Your task to perform on an android device: Go to display settings Image 0: 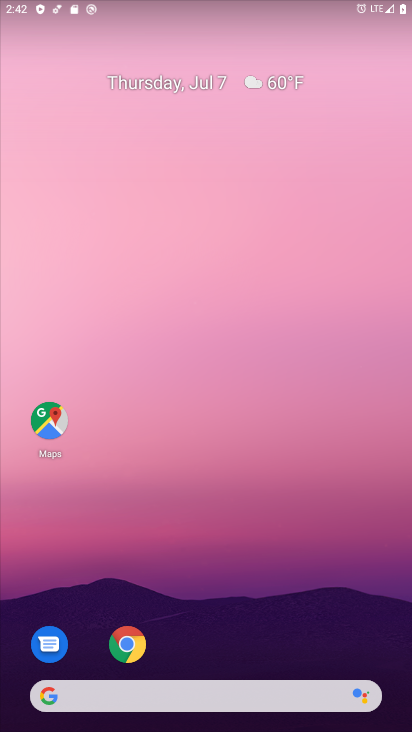
Step 0: drag from (165, 683) to (213, 124)
Your task to perform on an android device: Go to display settings Image 1: 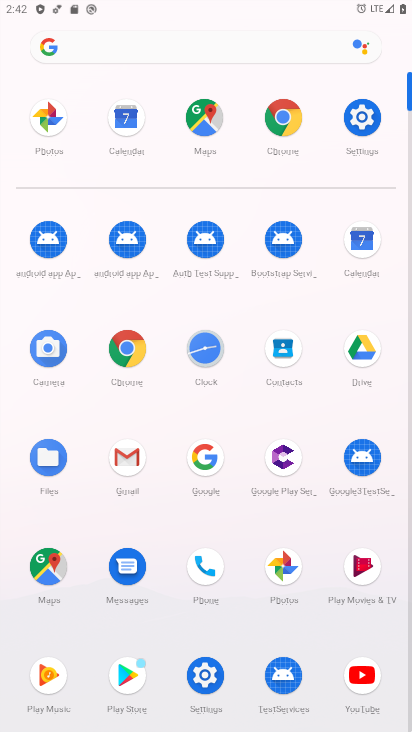
Step 1: click (370, 111)
Your task to perform on an android device: Go to display settings Image 2: 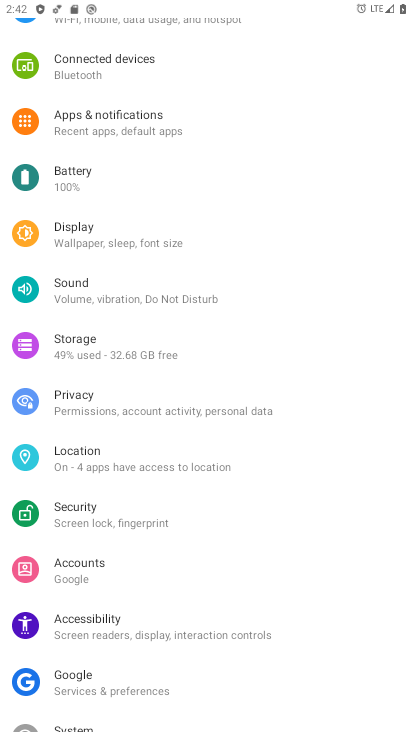
Step 2: click (81, 244)
Your task to perform on an android device: Go to display settings Image 3: 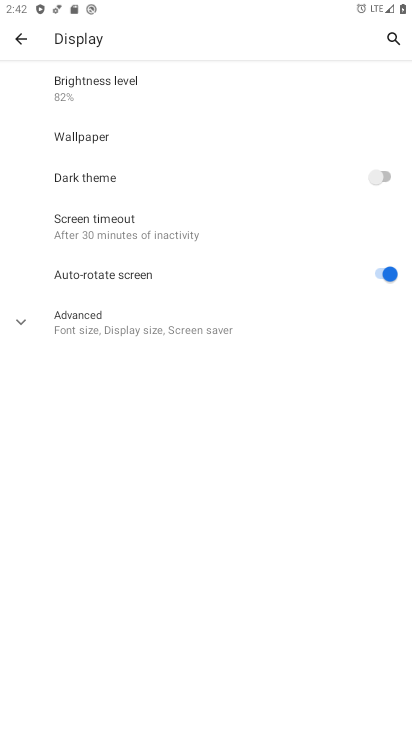
Step 3: task complete